Your task to perform on an android device: Go to Google Image 0: 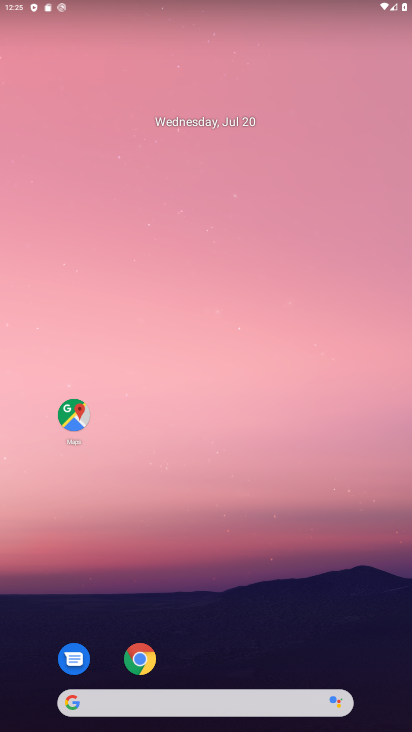
Step 0: drag from (391, 652) to (197, 16)
Your task to perform on an android device: Go to Google Image 1: 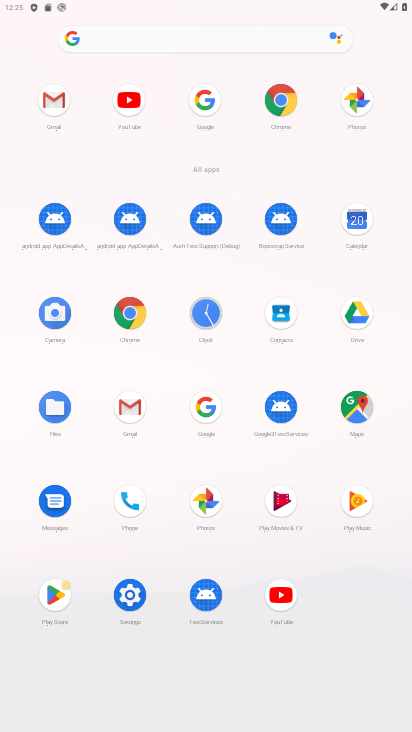
Step 1: click (212, 412)
Your task to perform on an android device: Go to Google Image 2: 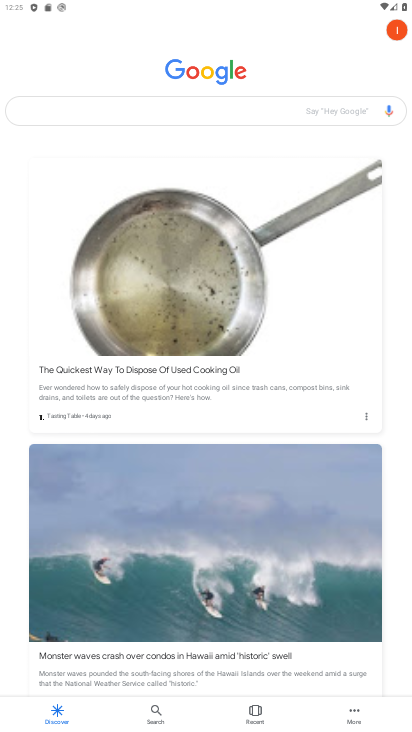
Step 2: task complete